Your task to perform on an android device: Open the Play Movies app and select the watchlist tab. Image 0: 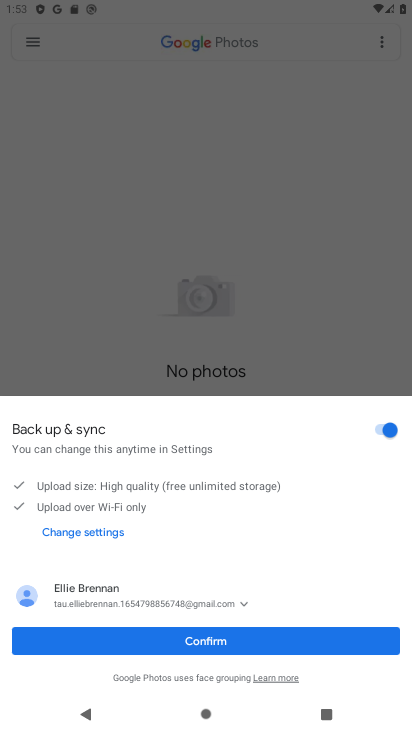
Step 0: press home button
Your task to perform on an android device: Open the Play Movies app and select the watchlist tab. Image 1: 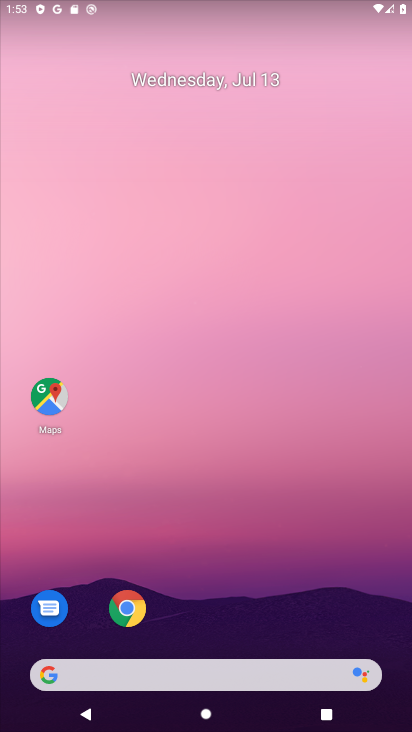
Step 1: drag from (348, 1) to (290, 0)
Your task to perform on an android device: Open the Play Movies app and select the watchlist tab. Image 2: 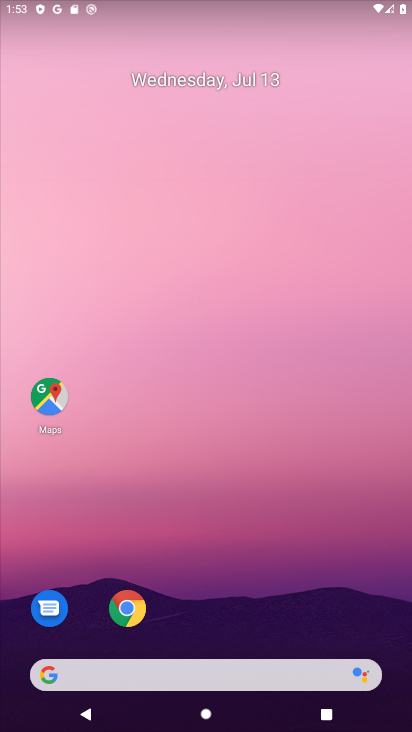
Step 2: drag from (233, 636) to (295, 191)
Your task to perform on an android device: Open the Play Movies app and select the watchlist tab. Image 3: 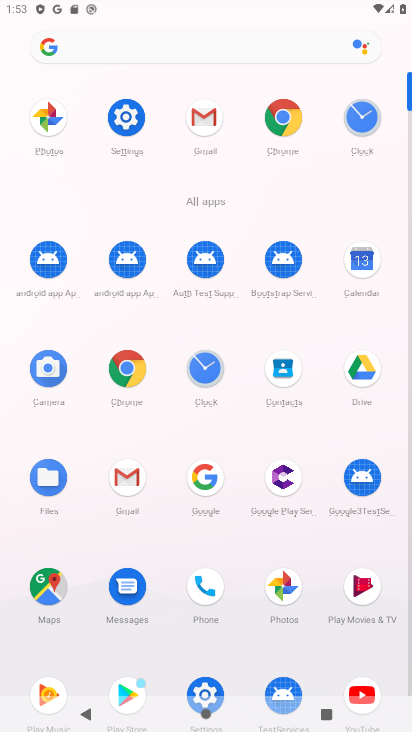
Step 3: click (372, 593)
Your task to perform on an android device: Open the Play Movies app and select the watchlist tab. Image 4: 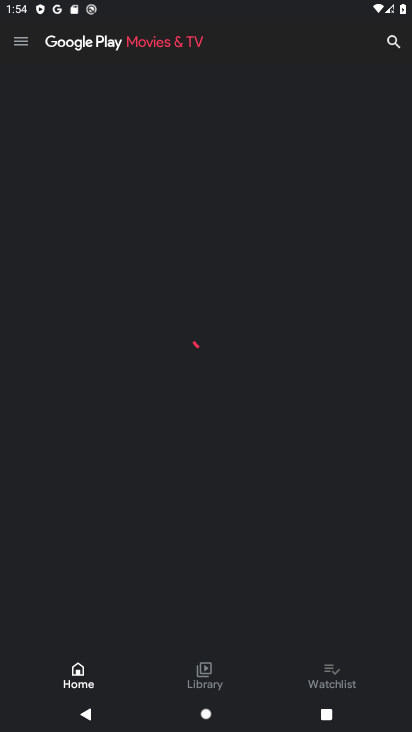
Step 4: click (328, 676)
Your task to perform on an android device: Open the Play Movies app and select the watchlist tab. Image 5: 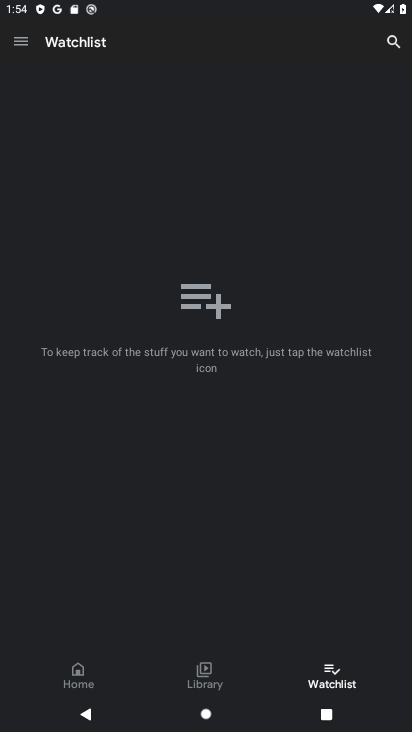
Step 5: task complete